Your task to perform on an android device: change the clock display to digital Image 0: 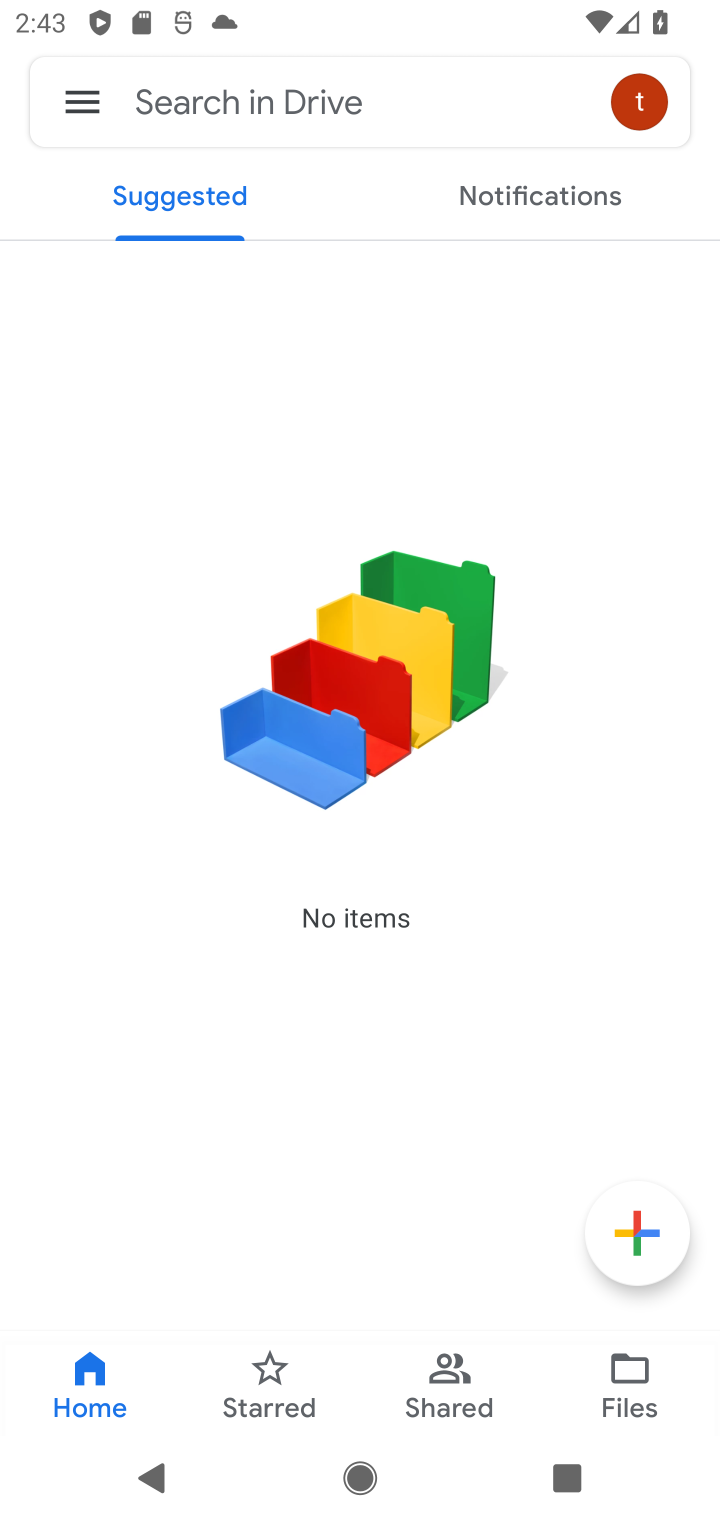
Step 0: press home button
Your task to perform on an android device: change the clock display to digital Image 1: 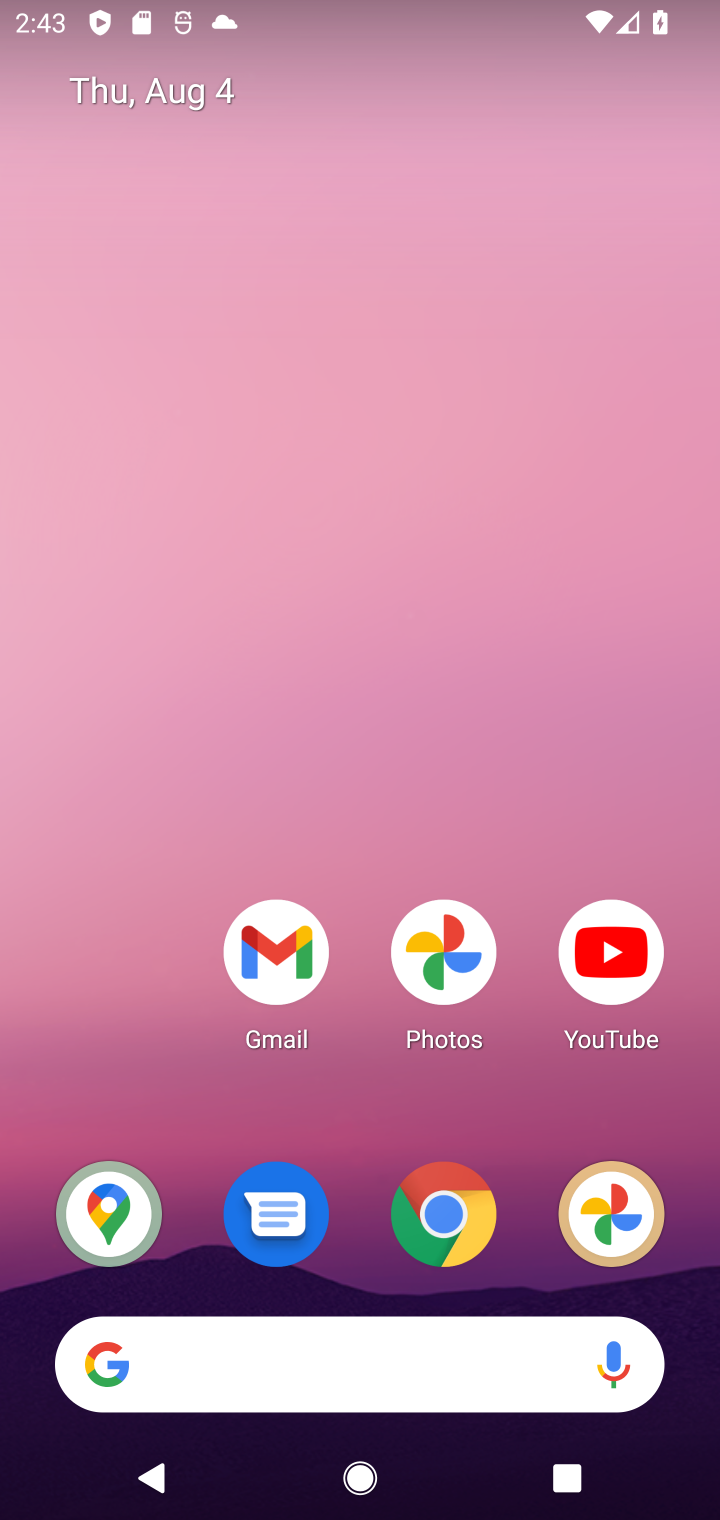
Step 1: drag from (134, 1017) to (71, 0)
Your task to perform on an android device: change the clock display to digital Image 2: 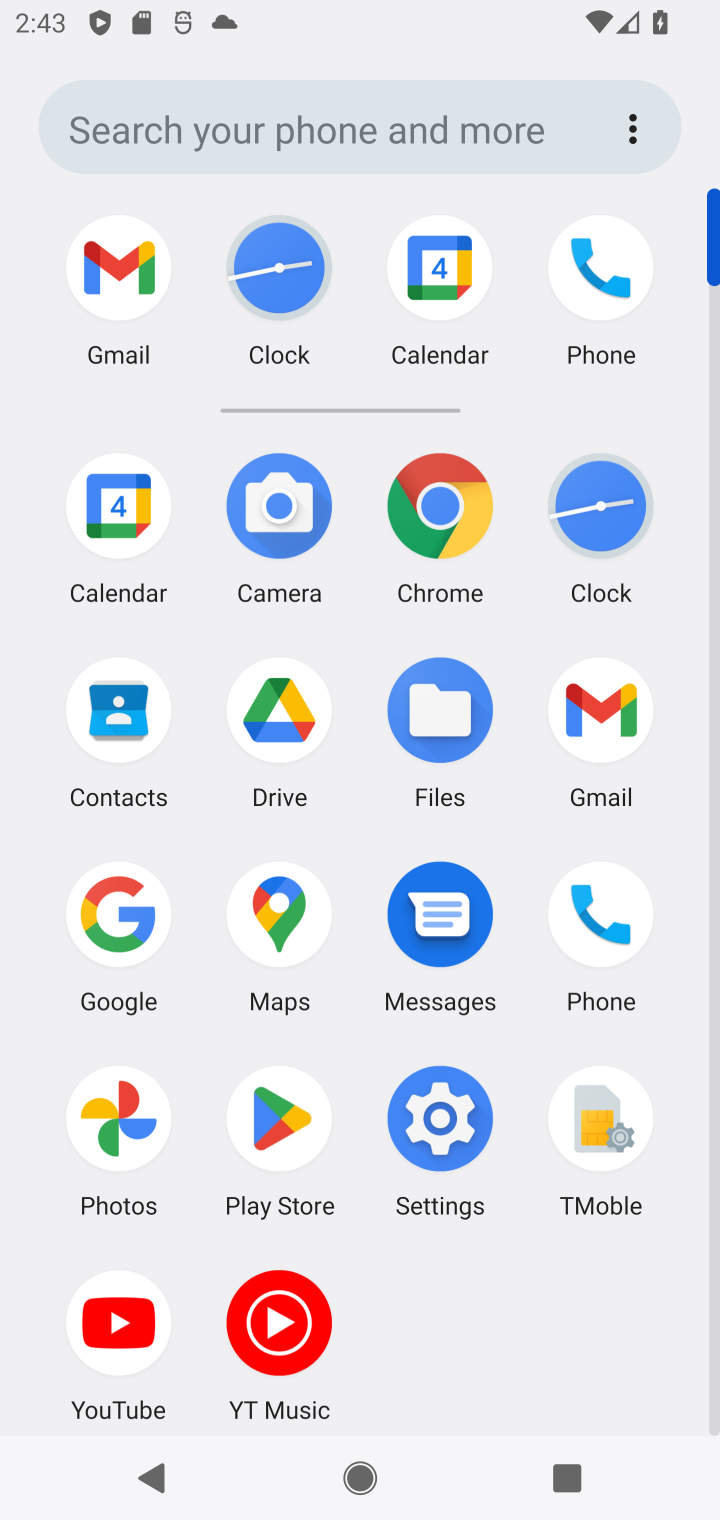
Step 2: click (615, 542)
Your task to perform on an android device: change the clock display to digital Image 3: 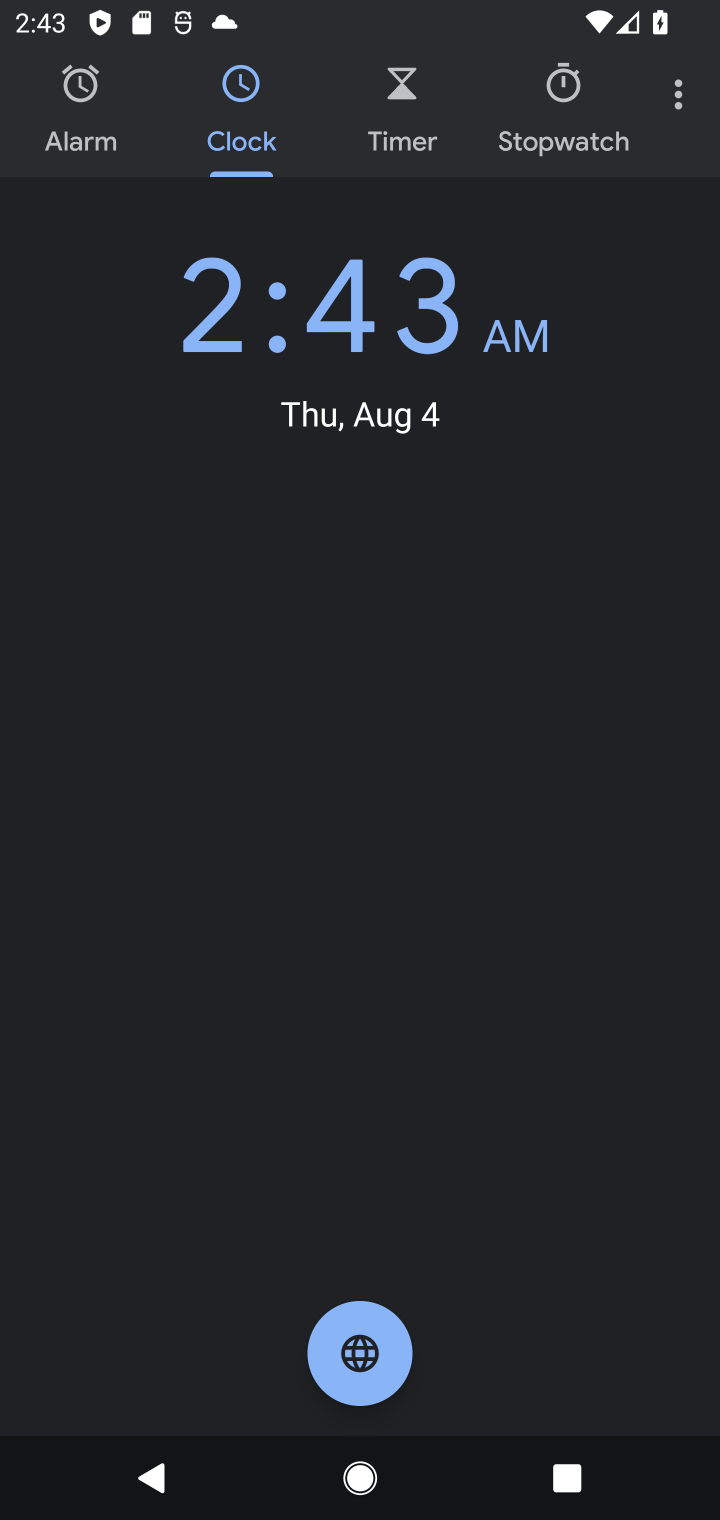
Step 3: click (673, 100)
Your task to perform on an android device: change the clock display to digital Image 4: 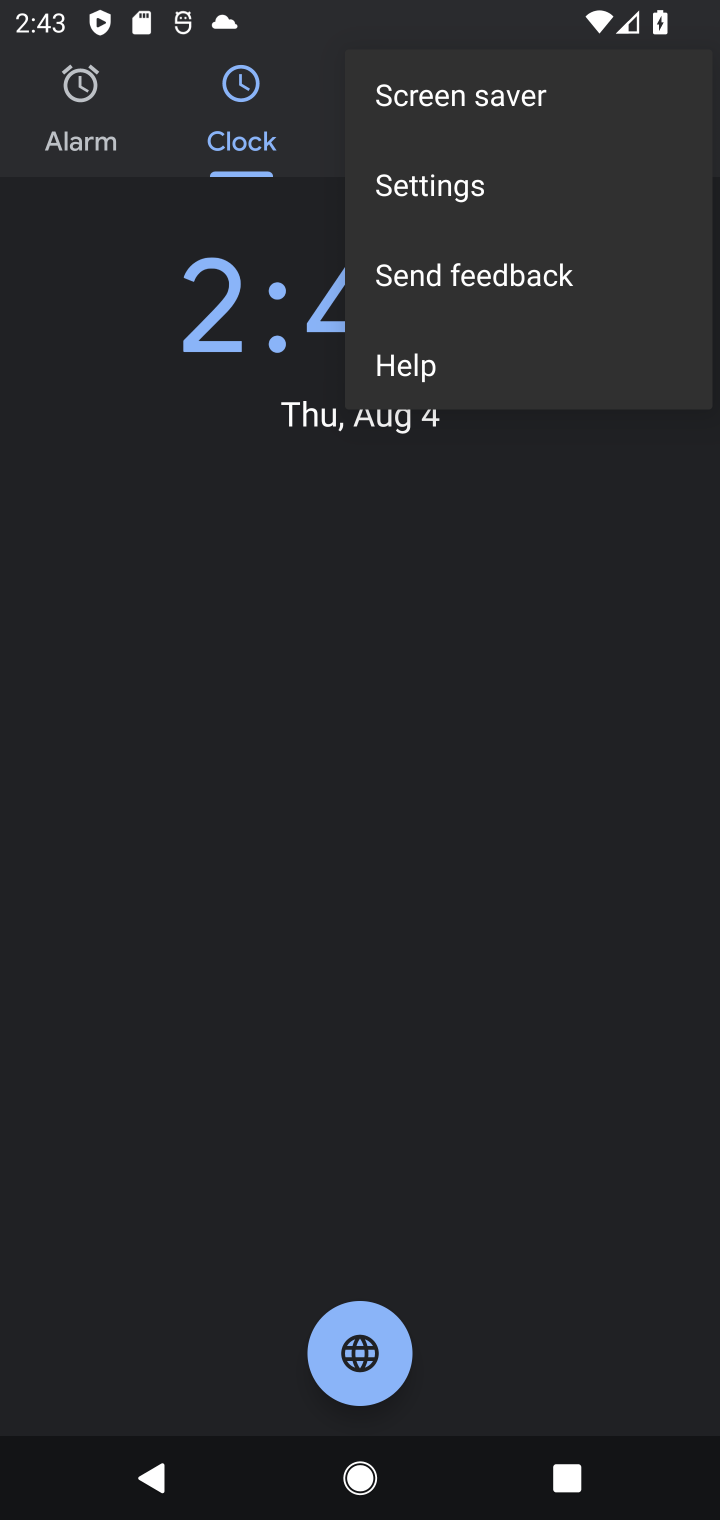
Step 4: click (393, 187)
Your task to perform on an android device: change the clock display to digital Image 5: 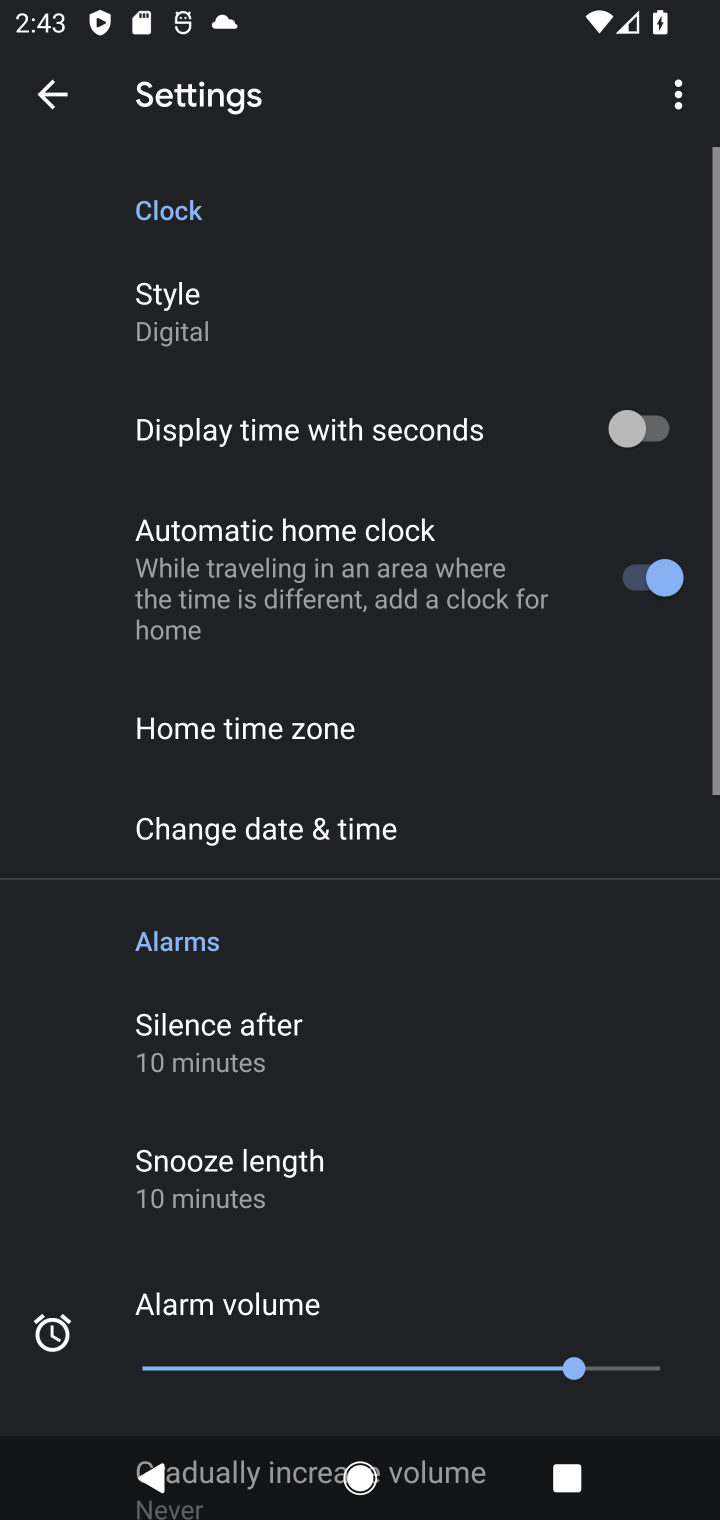
Step 5: click (164, 300)
Your task to perform on an android device: change the clock display to digital Image 6: 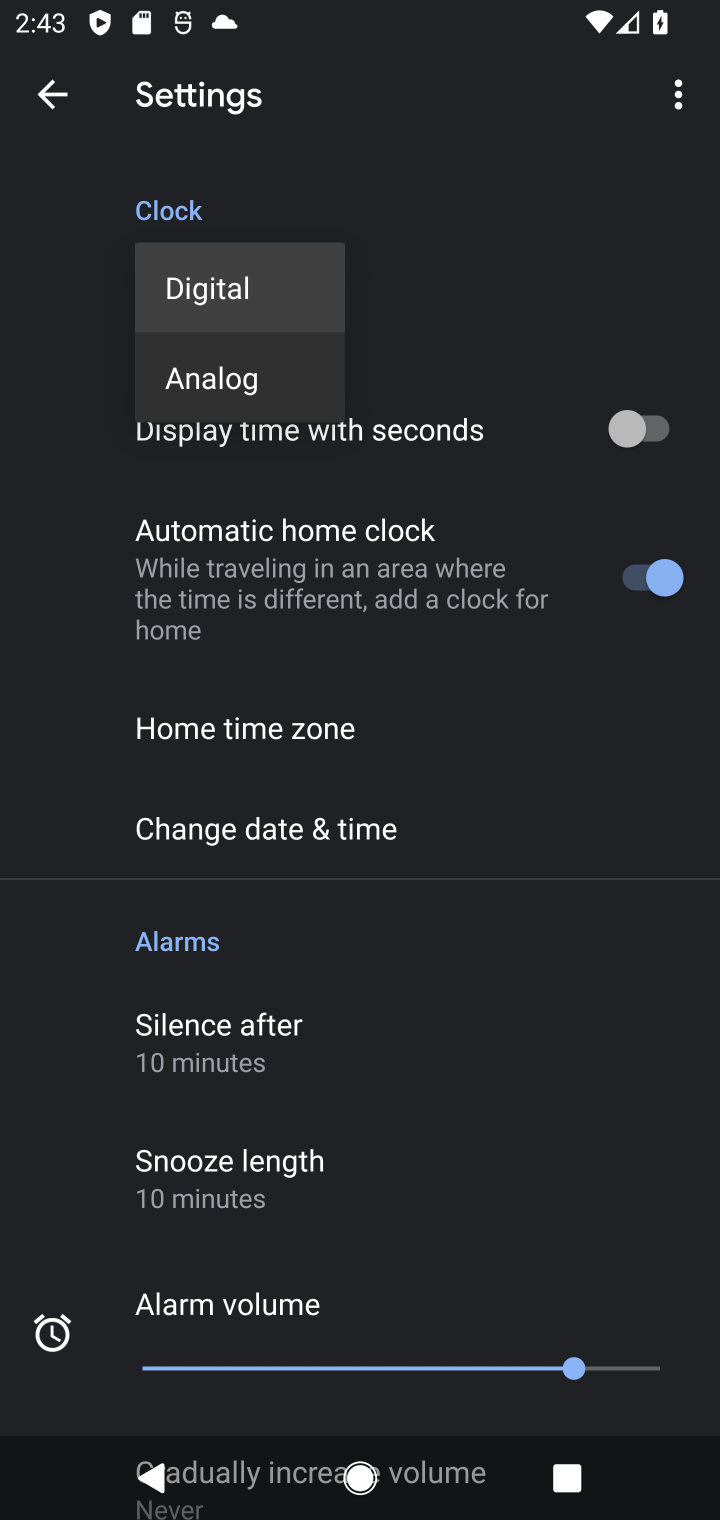
Step 6: click (253, 311)
Your task to perform on an android device: change the clock display to digital Image 7: 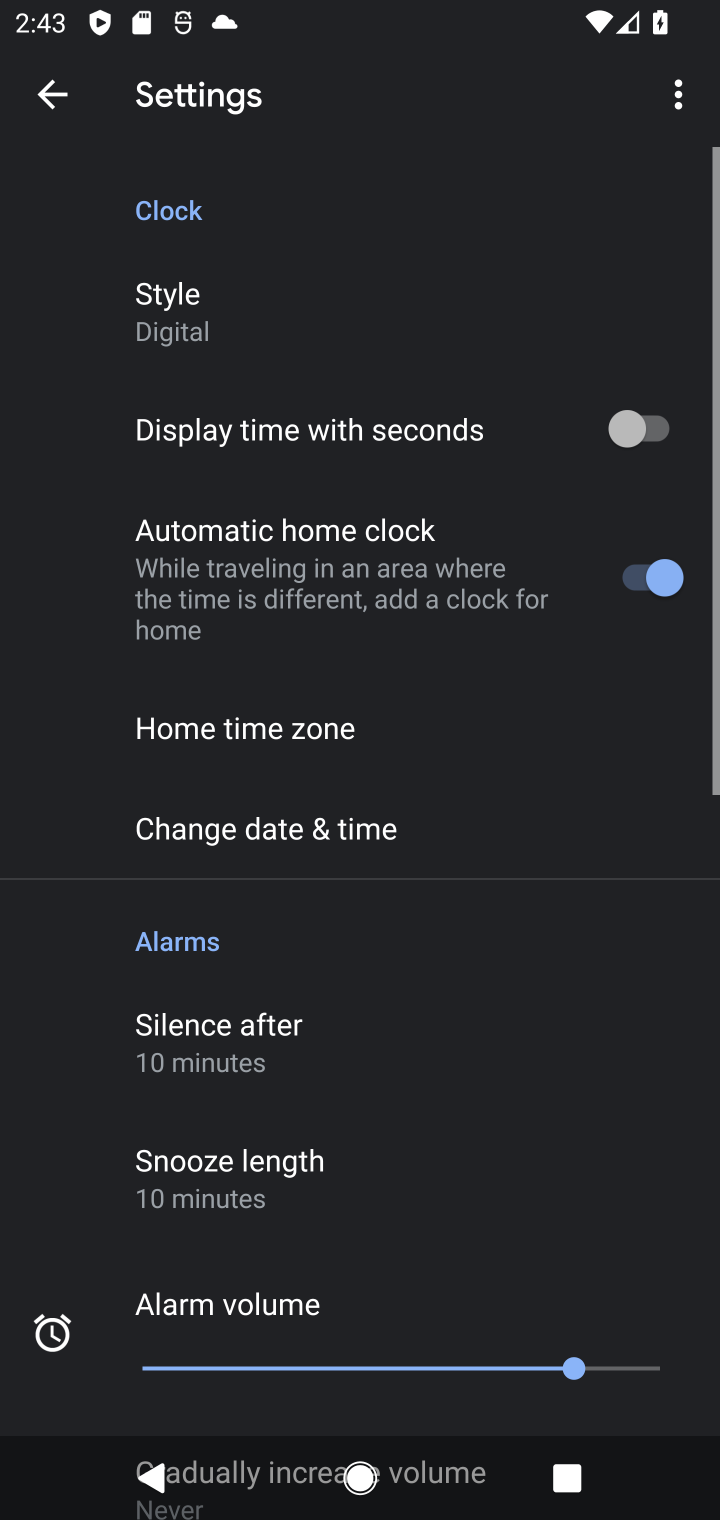
Step 7: task complete